Your task to perform on an android device: turn off smart reply in the gmail app Image 0: 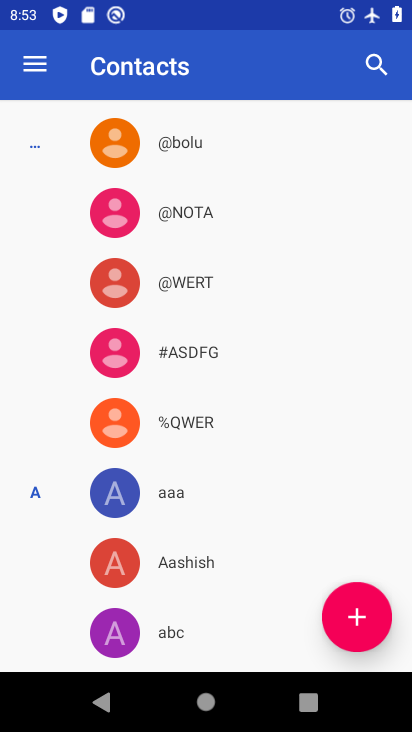
Step 0: press home button
Your task to perform on an android device: turn off smart reply in the gmail app Image 1: 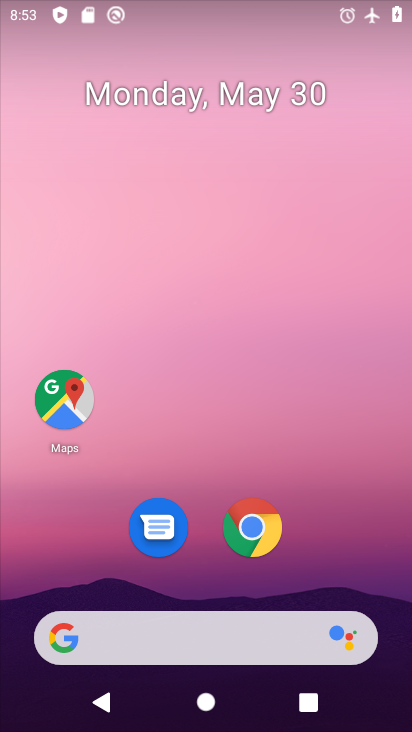
Step 1: drag from (272, 633) to (345, 49)
Your task to perform on an android device: turn off smart reply in the gmail app Image 2: 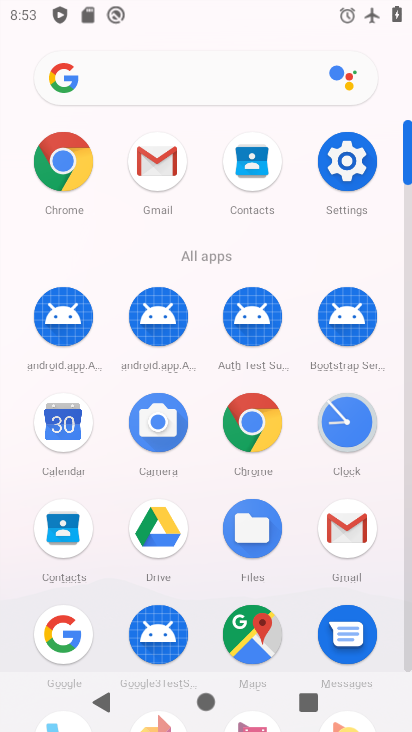
Step 2: click (340, 535)
Your task to perform on an android device: turn off smart reply in the gmail app Image 3: 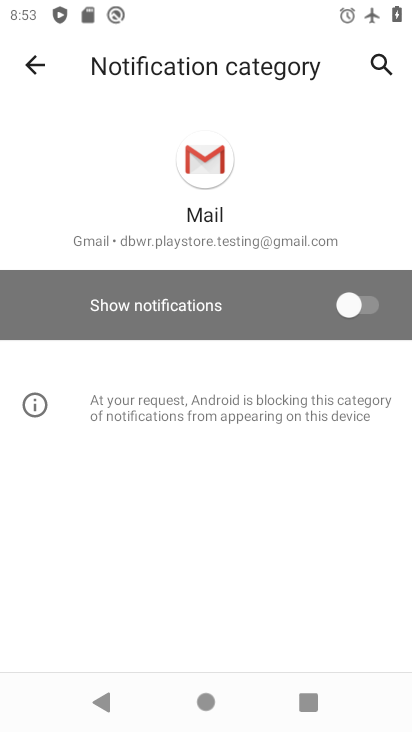
Step 3: press back button
Your task to perform on an android device: turn off smart reply in the gmail app Image 4: 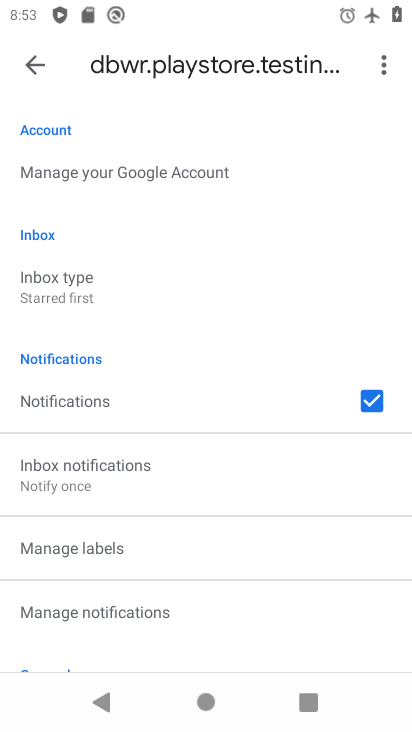
Step 4: drag from (162, 610) to (195, 151)
Your task to perform on an android device: turn off smart reply in the gmail app Image 5: 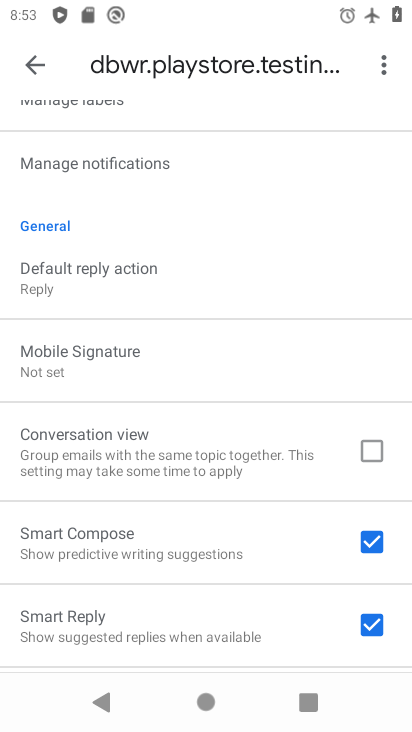
Step 5: click (369, 622)
Your task to perform on an android device: turn off smart reply in the gmail app Image 6: 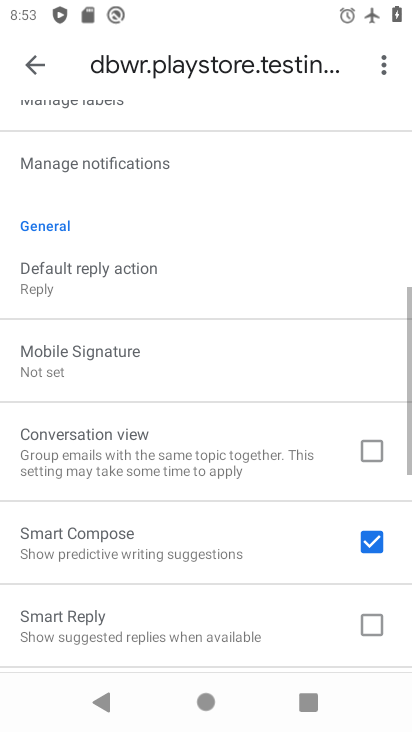
Step 6: task complete